Your task to perform on an android device: Turn off the flashlight Image 0: 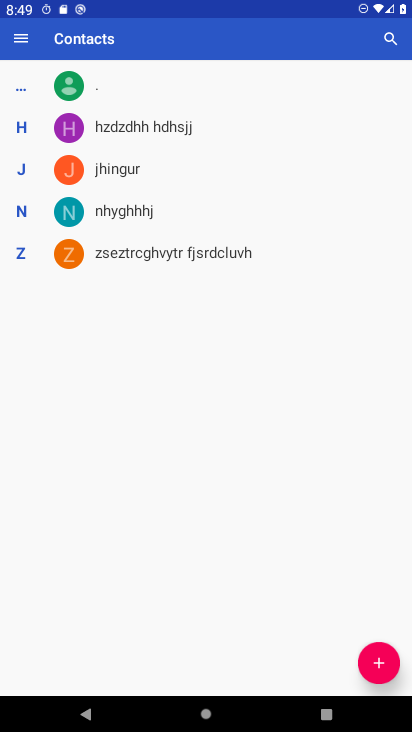
Step 0: press back button
Your task to perform on an android device: Turn off the flashlight Image 1: 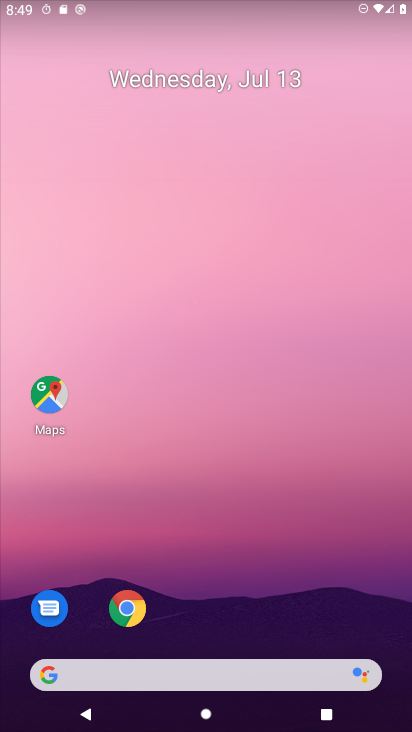
Step 1: task complete